Your task to perform on an android device: Open Wikipedia Image 0: 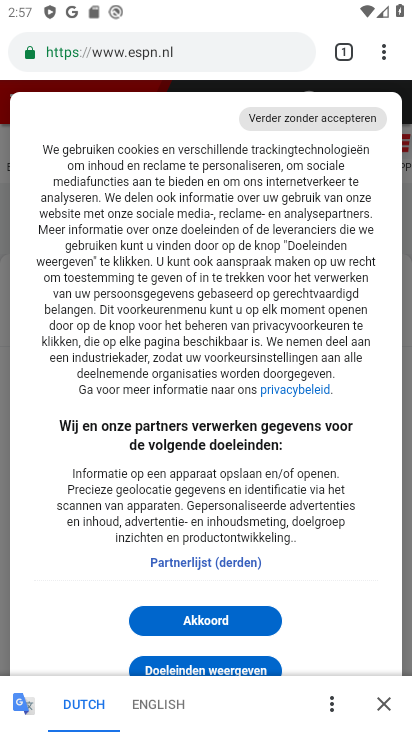
Step 0: press home button
Your task to perform on an android device: Open Wikipedia Image 1: 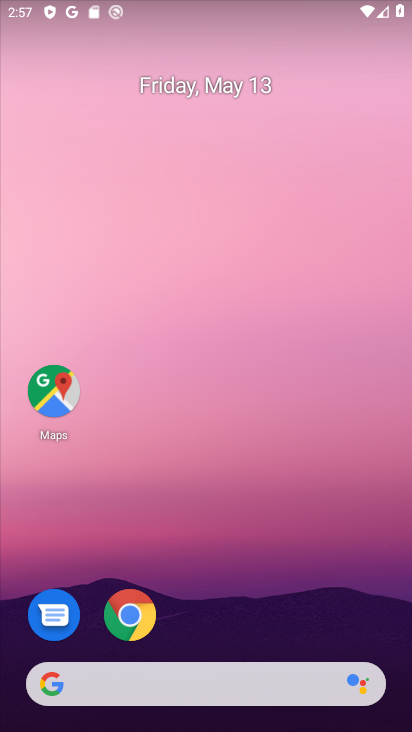
Step 1: drag from (213, 693) to (294, 139)
Your task to perform on an android device: Open Wikipedia Image 2: 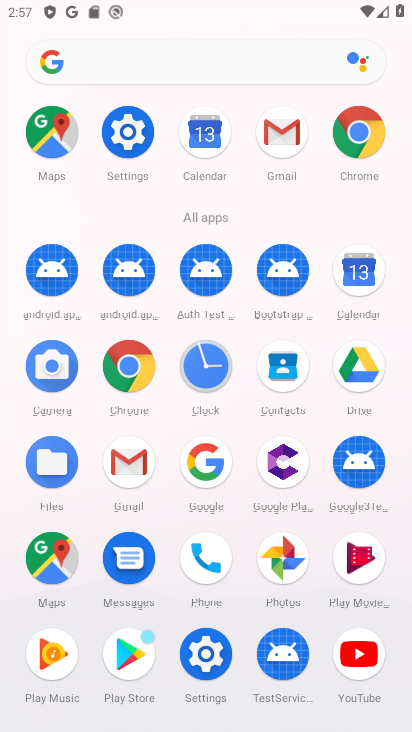
Step 2: click (352, 137)
Your task to perform on an android device: Open Wikipedia Image 3: 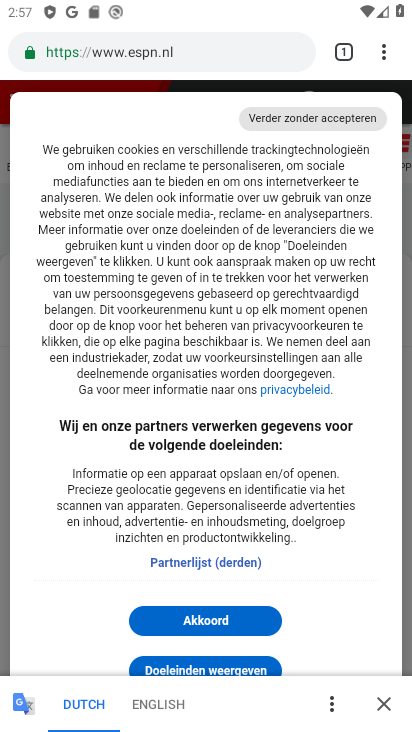
Step 3: drag from (380, 62) to (282, 99)
Your task to perform on an android device: Open Wikipedia Image 4: 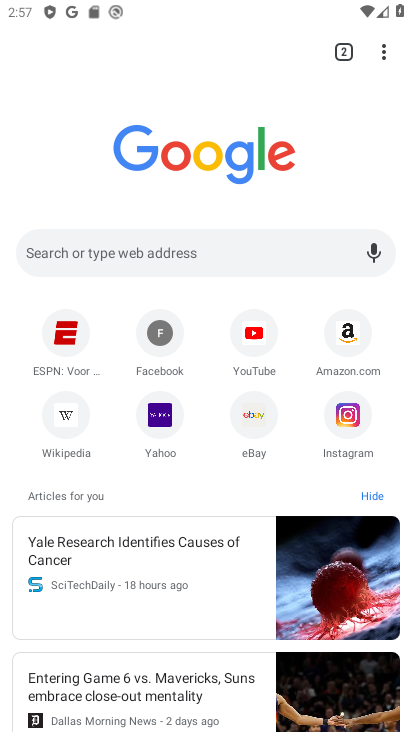
Step 4: click (63, 419)
Your task to perform on an android device: Open Wikipedia Image 5: 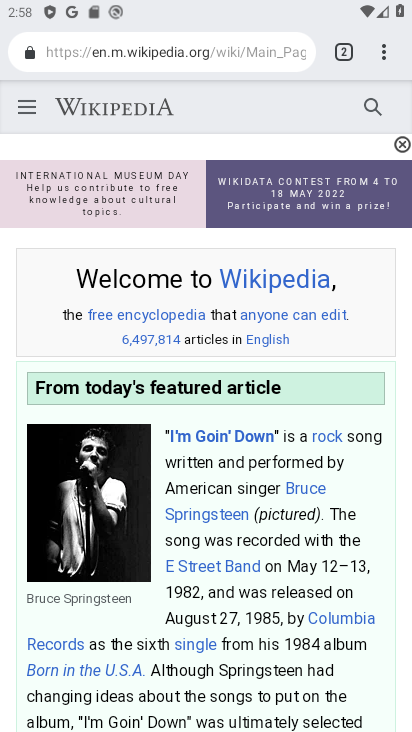
Step 5: task complete